Your task to perform on an android device: turn on javascript in the chrome app Image 0: 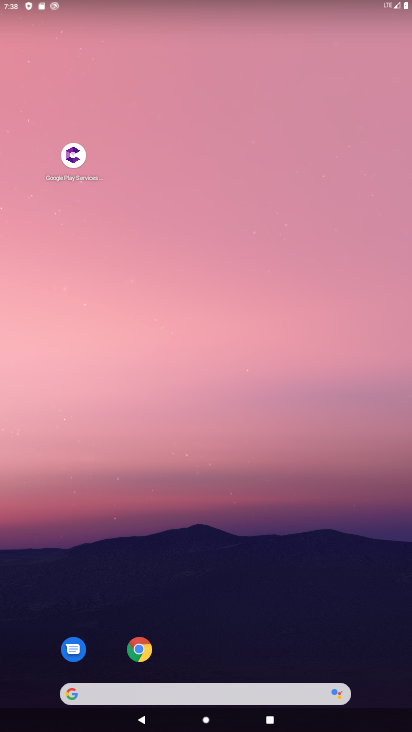
Step 0: click (139, 653)
Your task to perform on an android device: turn on javascript in the chrome app Image 1: 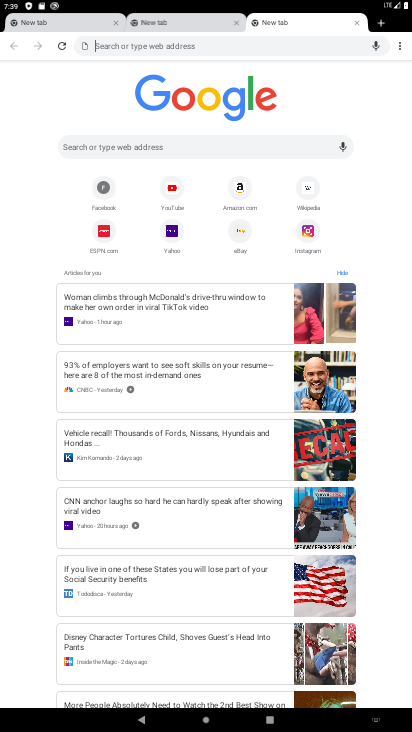
Step 1: click (396, 45)
Your task to perform on an android device: turn on javascript in the chrome app Image 2: 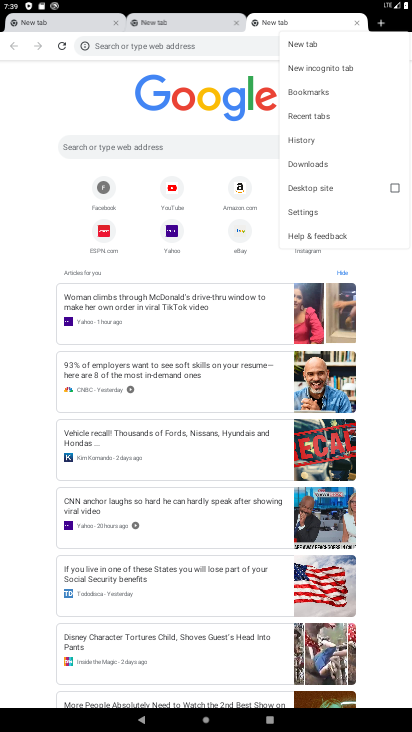
Step 2: click (300, 211)
Your task to perform on an android device: turn on javascript in the chrome app Image 3: 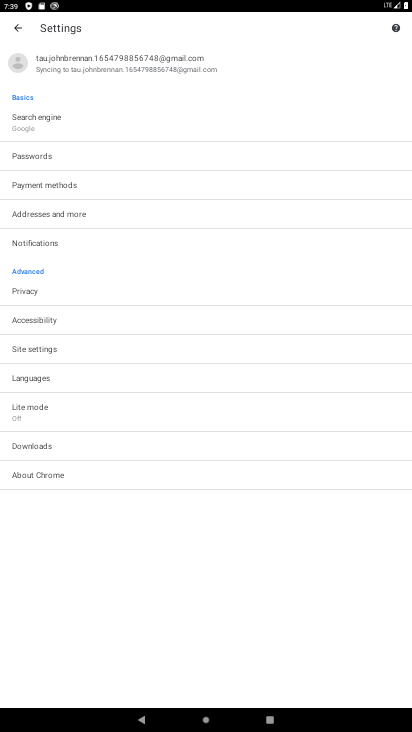
Step 3: click (63, 353)
Your task to perform on an android device: turn on javascript in the chrome app Image 4: 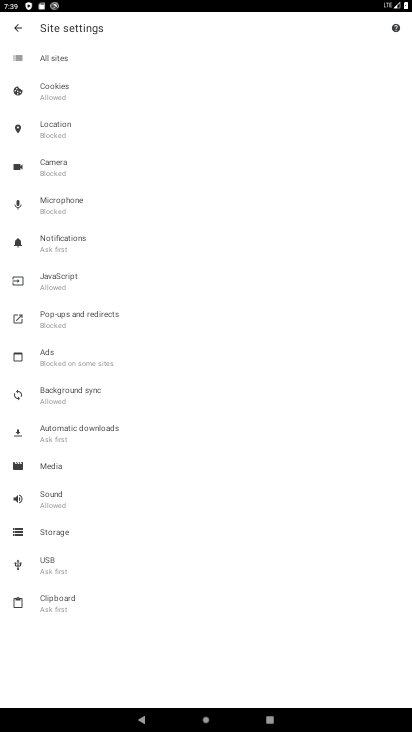
Step 4: click (67, 275)
Your task to perform on an android device: turn on javascript in the chrome app Image 5: 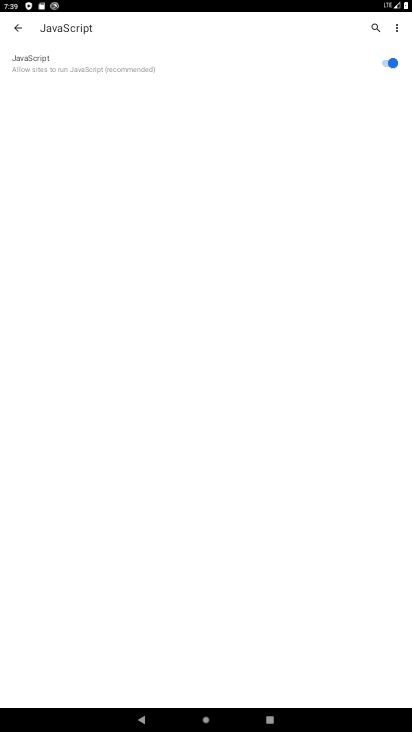
Step 5: task complete